Your task to perform on an android device: Open maps Image 0: 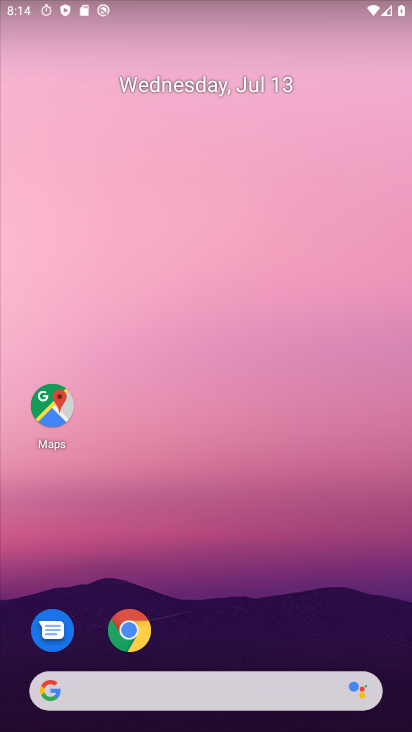
Step 0: click (338, 30)
Your task to perform on an android device: Open maps Image 1: 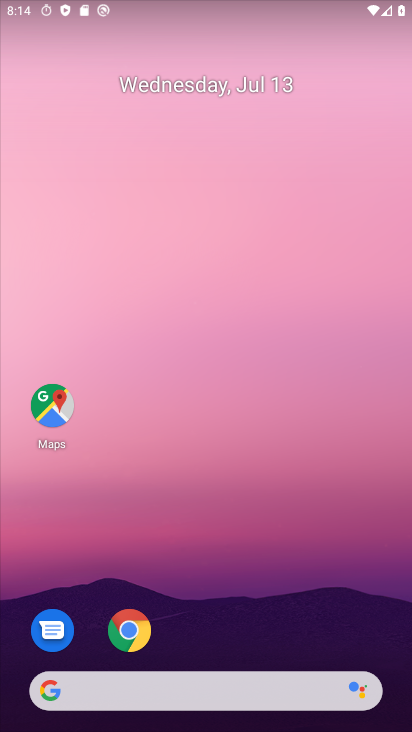
Step 1: drag from (201, 617) to (244, 283)
Your task to perform on an android device: Open maps Image 2: 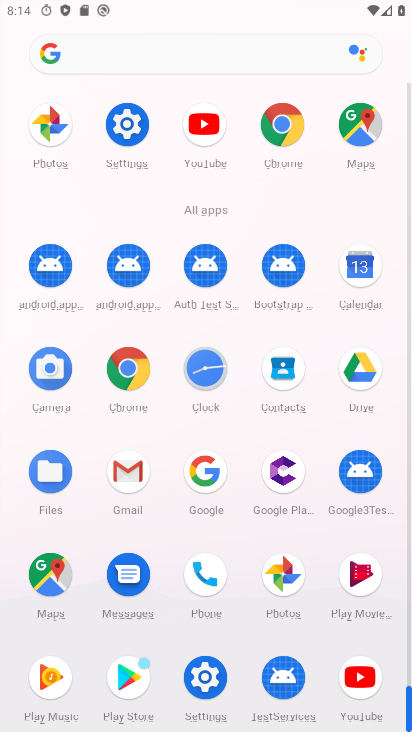
Step 2: click (42, 574)
Your task to perform on an android device: Open maps Image 3: 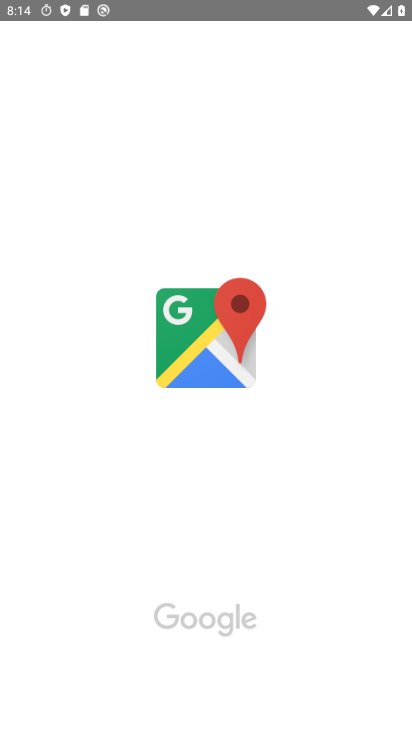
Step 3: task complete